Your task to perform on an android device: Go to Maps Image 0: 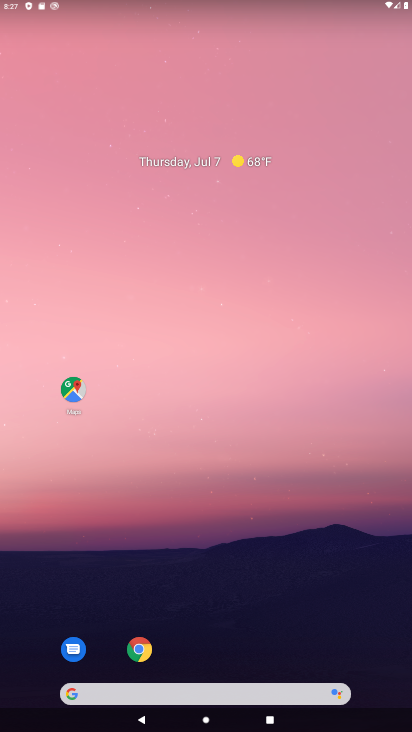
Step 0: click (66, 378)
Your task to perform on an android device: Go to Maps Image 1: 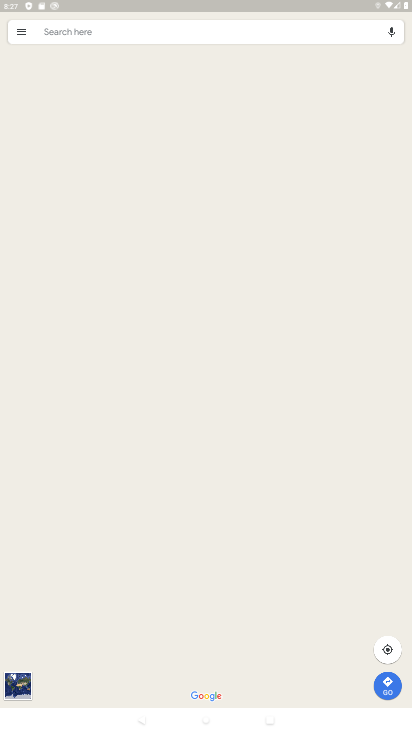
Step 1: task complete